Your task to perform on an android device: see tabs open on other devices in the chrome app Image 0: 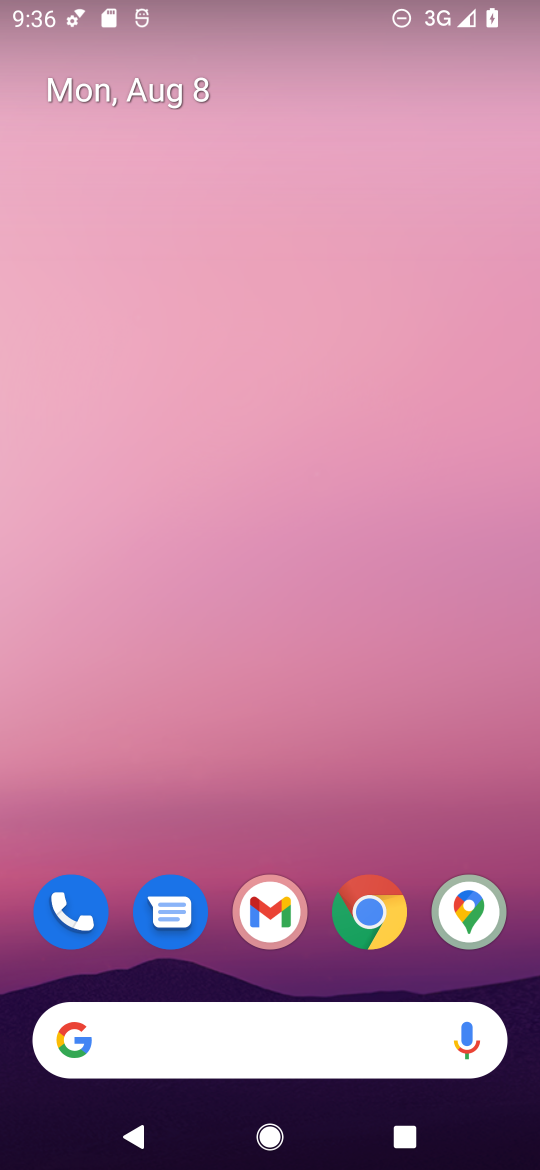
Step 0: drag from (515, 971) to (319, 62)
Your task to perform on an android device: see tabs open on other devices in the chrome app Image 1: 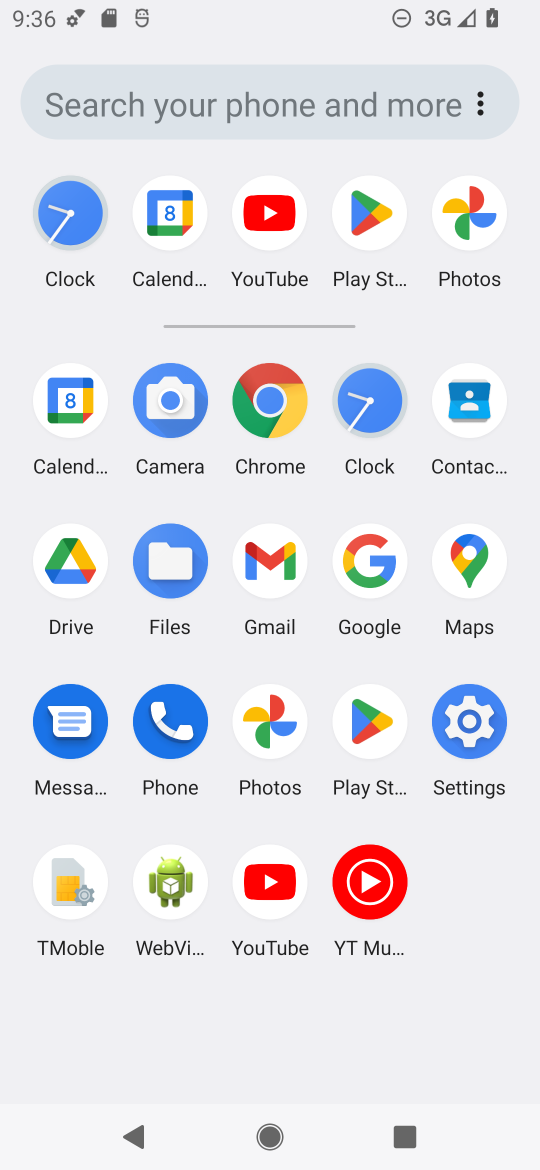
Step 1: click (283, 422)
Your task to perform on an android device: see tabs open on other devices in the chrome app Image 2: 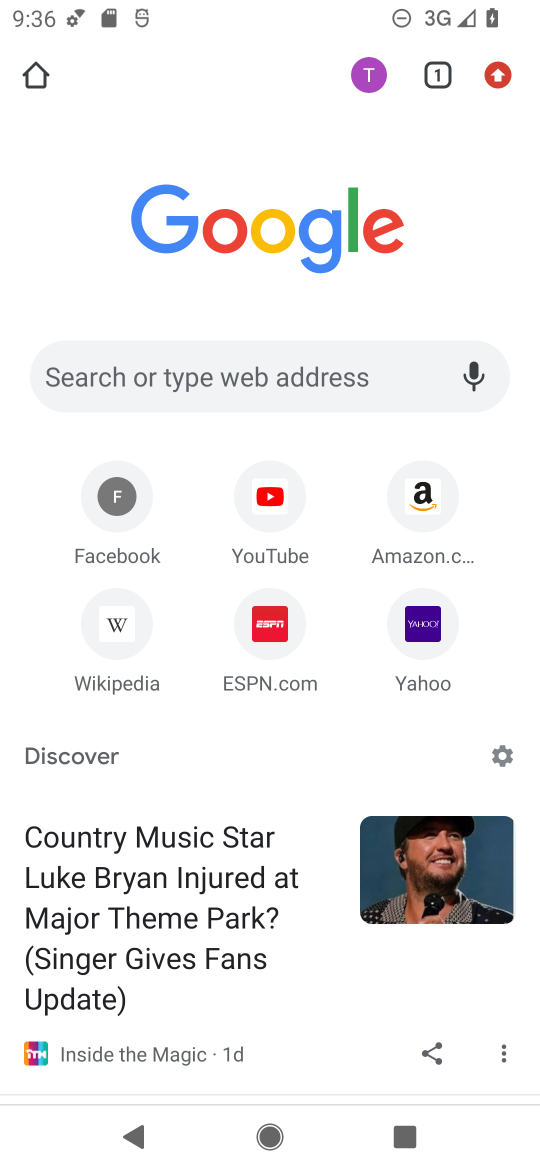
Step 2: task complete